Your task to perform on an android device: Open Google Image 0: 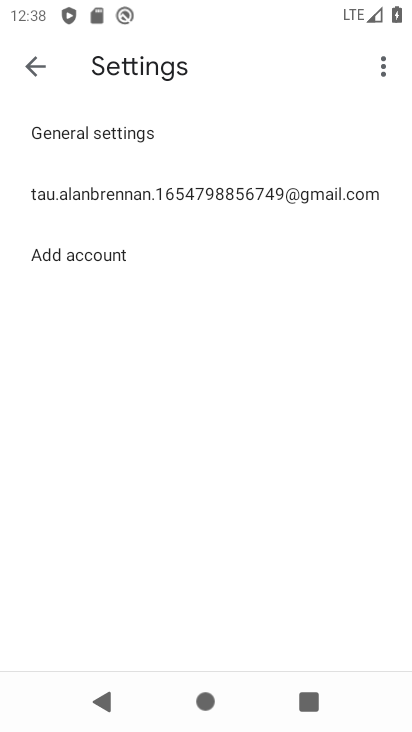
Step 0: press home button
Your task to perform on an android device: Open Google Image 1: 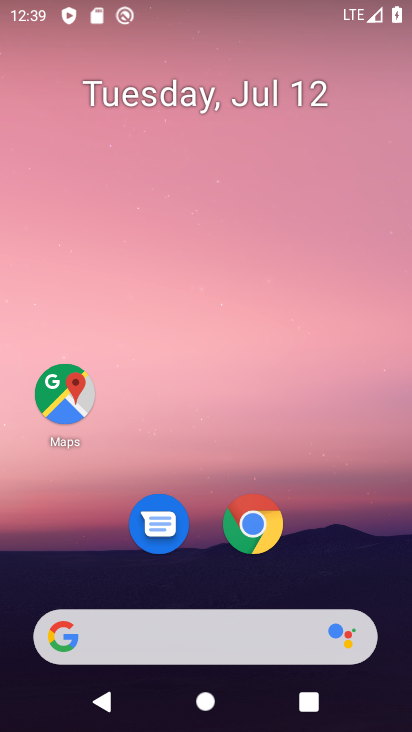
Step 1: drag from (350, 552) to (283, 40)
Your task to perform on an android device: Open Google Image 2: 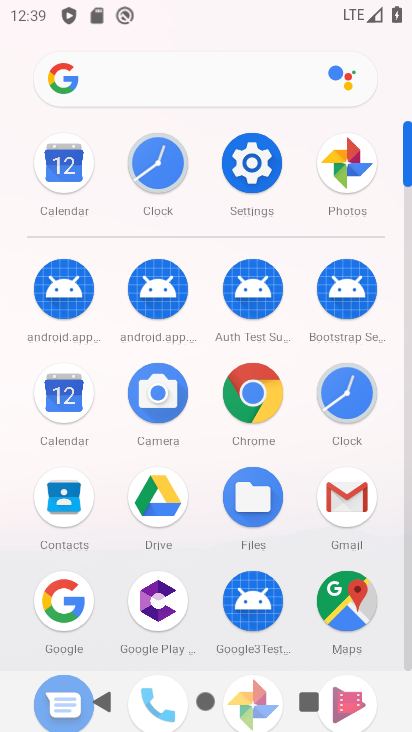
Step 2: click (71, 600)
Your task to perform on an android device: Open Google Image 3: 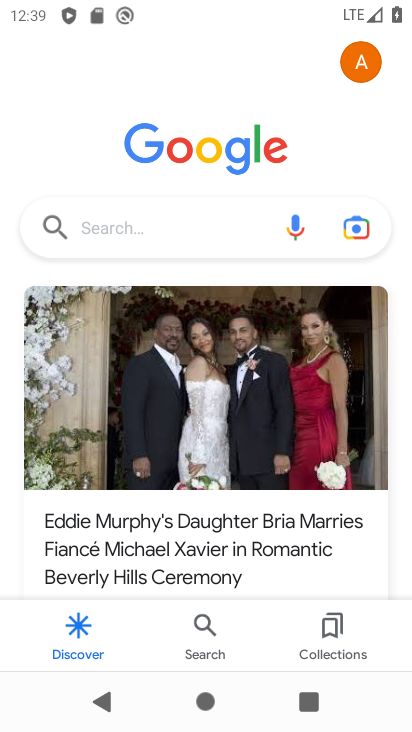
Step 3: task complete